Your task to perform on an android device: Open Google Chrome and click the shortcut for Amazon.com Image 0: 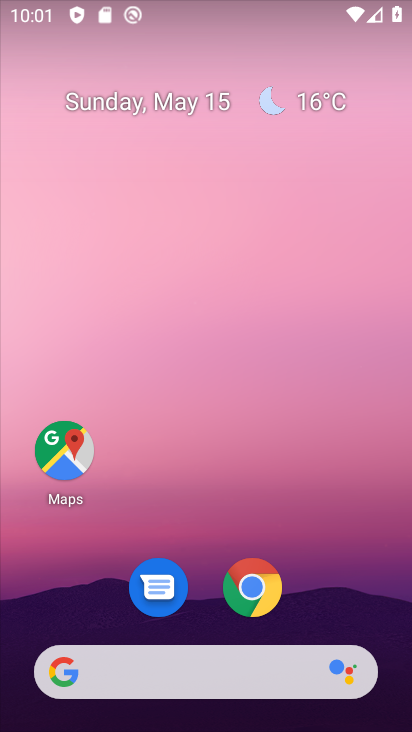
Step 0: drag from (290, 463) to (259, 40)
Your task to perform on an android device: Open Google Chrome and click the shortcut for Amazon.com Image 1: 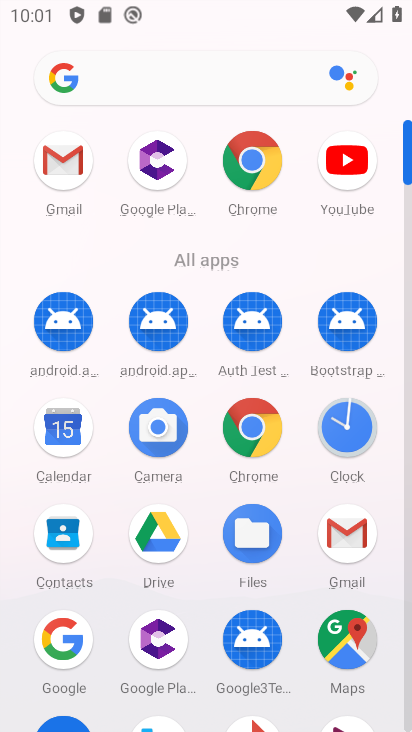
Step 1: drag from (15, 565) to (4, 302)
Your task to perform on an android device: Open Google Chrome and click the shortcut for Amazon.com Image 2: 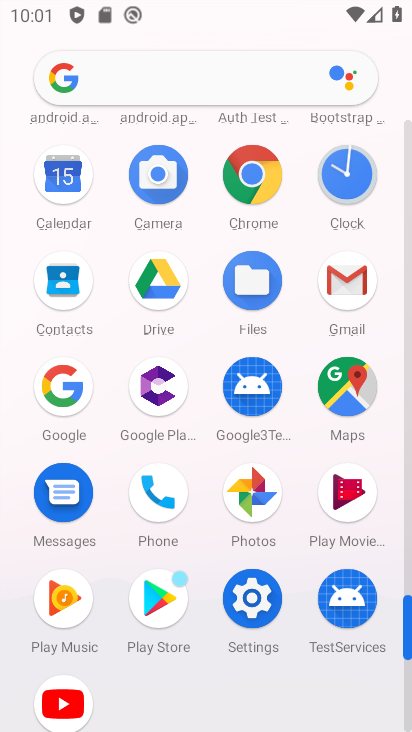
Step 2: click (249, 175)
Your task to perform on an android device: Open Google Chrome and click the shortcut for Amazon.com Image 3: 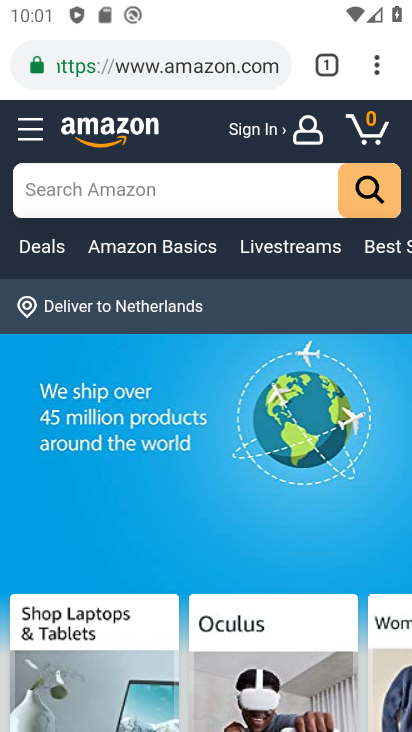
Step 3: drag from (374, 64) to (234, 589)
Your task to perform on an android device: Open Google Chrome and click the shortcut for Amazon.com Image 4: 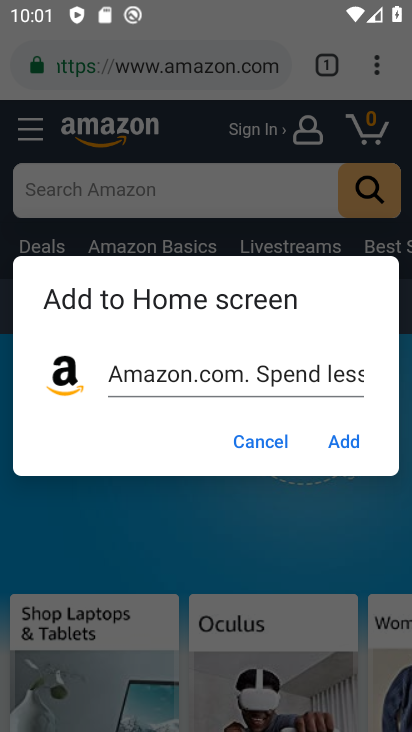
Step 4: click (351, 434)
Your task to perform on an android device: Open Google Chrome and click the shortcut for Amazon.com Image 5: 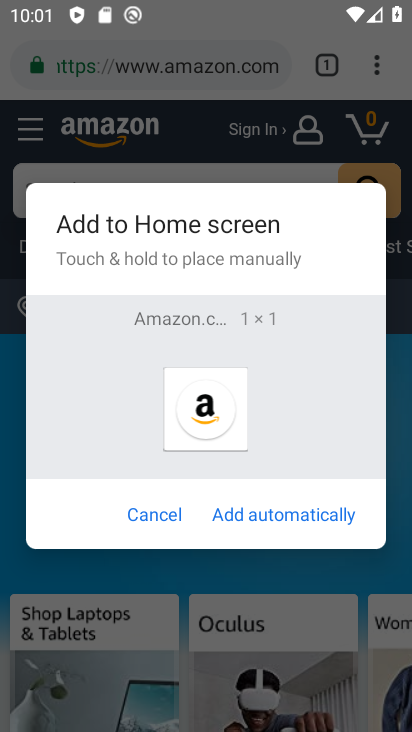
Step 5: click (285, 512)
Your task to perform on an android device: Open Google Chrome and click the shortcut for Amazon.com Image 6: 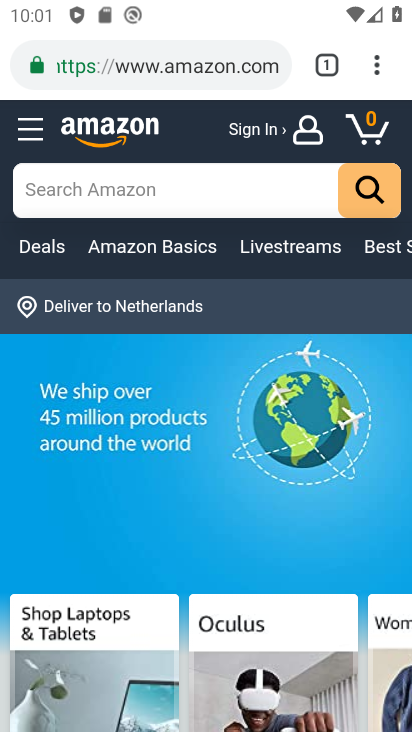
Step 6: task complete